Your task to perform on an android device: When is my next appointment? Image 0: 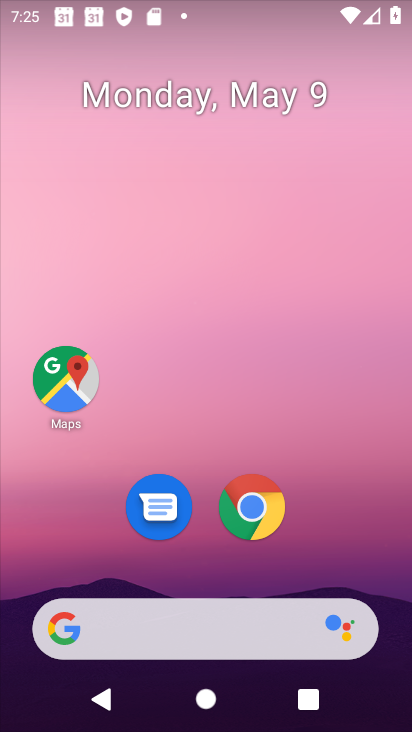
Step 0: drag from (243, 667) to (377, 155)
Your task to perform on an android device: When is my next appointment? Image 1: 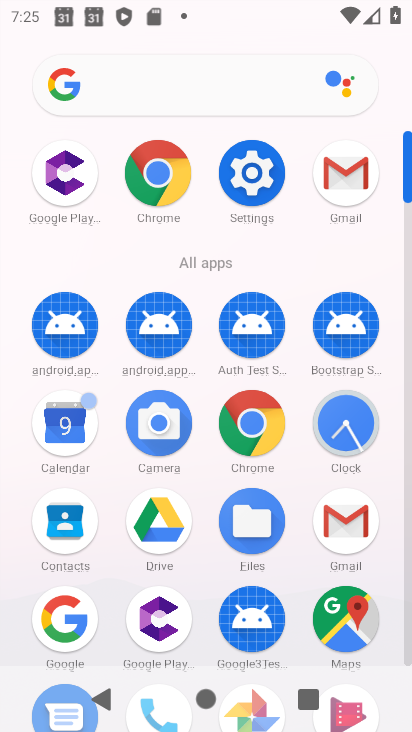
Step 1: click (73, 426)
Your task to perform on an android device: When is my next appointment? Image 2: 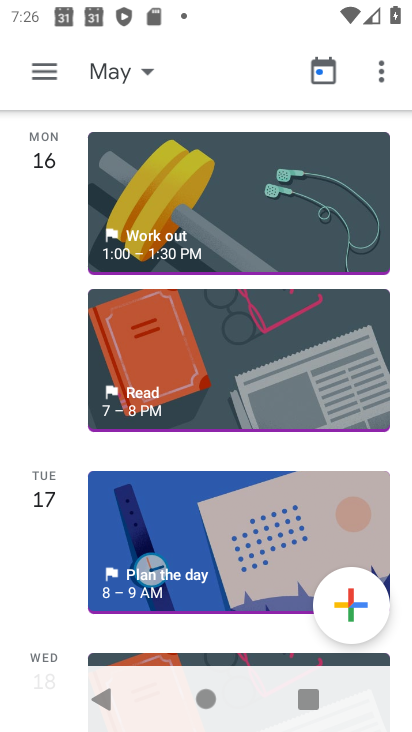
Step 2: click (57, 84)
Your task to perform on an android device: When is my next appointment? Image 3: 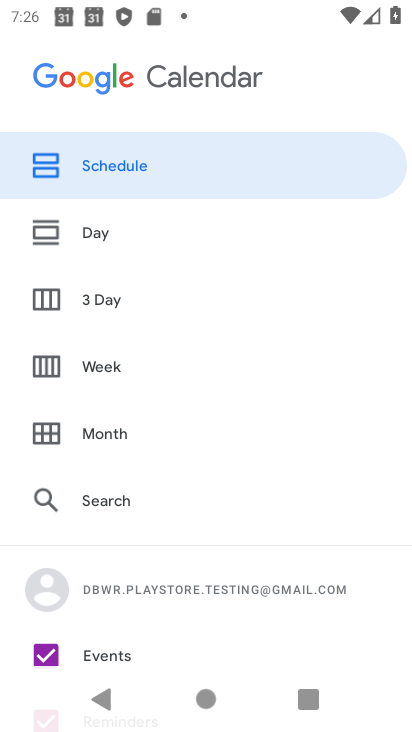
Step 3: click (154, 171)
Your task to perform on an android device: When is my next appointment? Image 4: 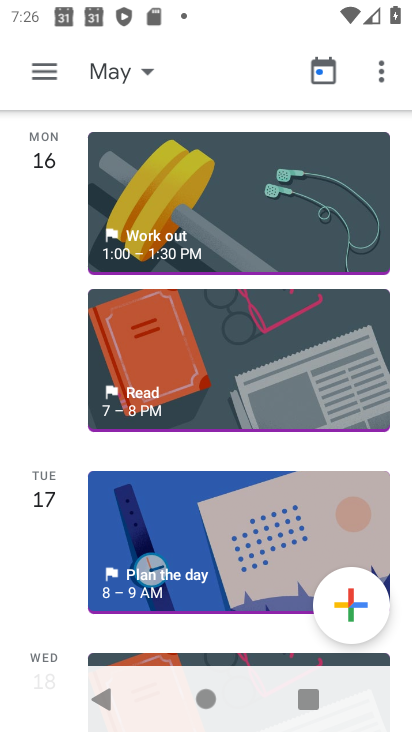
Step 4: click (47, 83)
Your task to perform on an android device: When is my next appointment? Image 5: 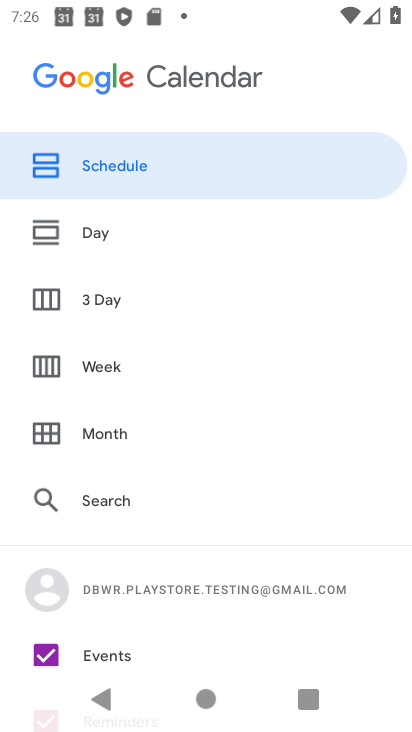
Step 5: click (140, 436)
Your task to perform on an android device: When is my next appointment? Image 6: 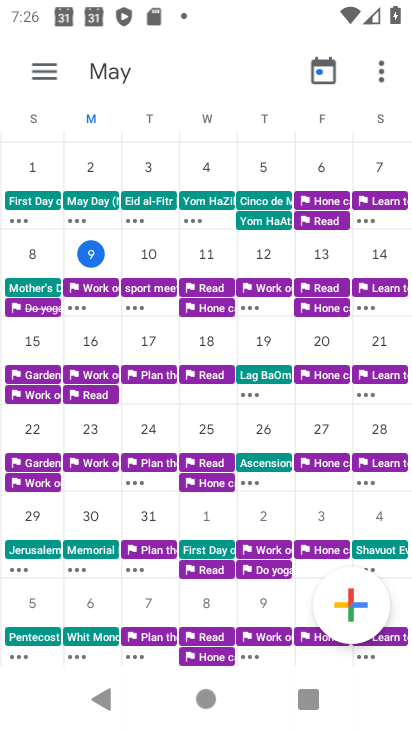
Step 6: click (91, 267)
Your task to perform on an android device: When is my next appointment? Image 7: 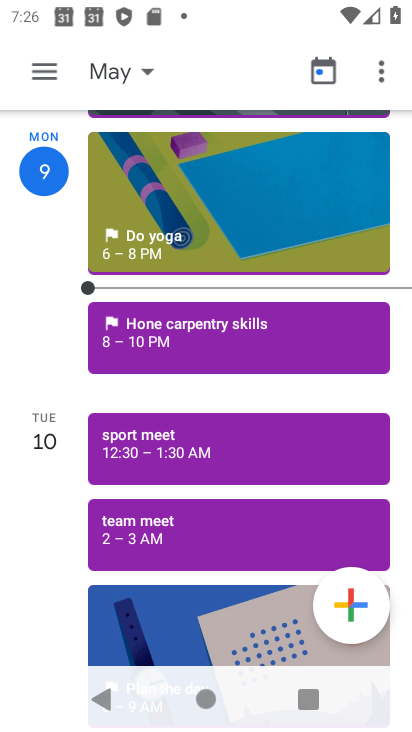
Step 7: task complete